Your task to perform on an android device: Do I have any events this weekend? Image 0: 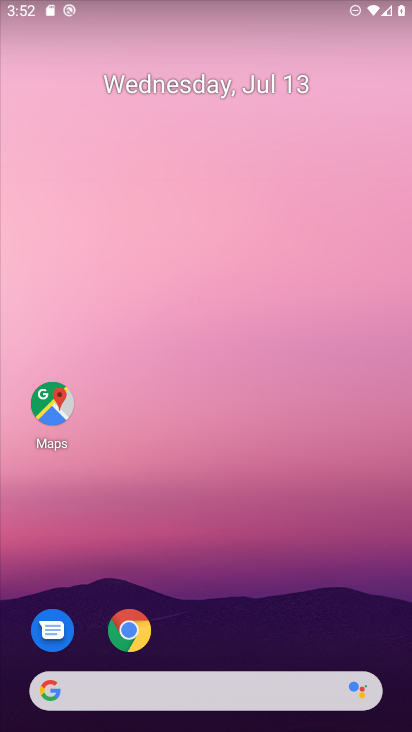
Step 0: drag from (189, 320) to (191, 213)
Your task to perform on an android device: Do I have any events this weekend? Image 1: 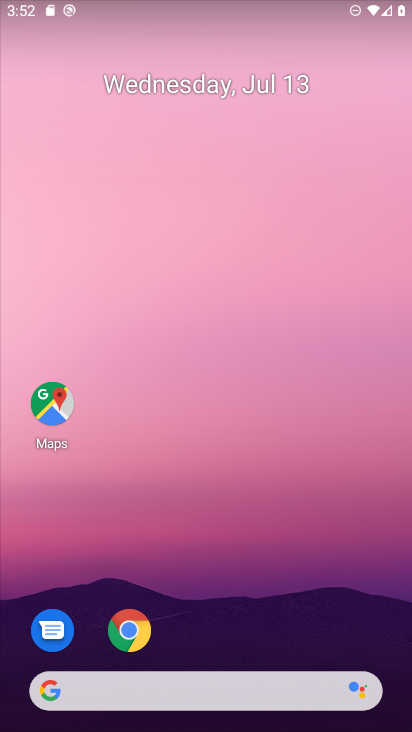
Step 1: drag from (201, 650) to (165, 121)
Your task to perform on an android device: Do I have any events this weekend? Image 2: 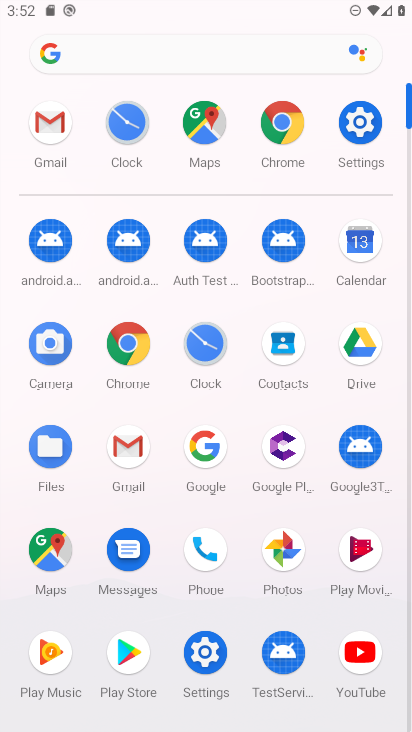
Step 2: click (357, 255)
Your task to perform on an android device: Do I have any events this weekend? Image 3: 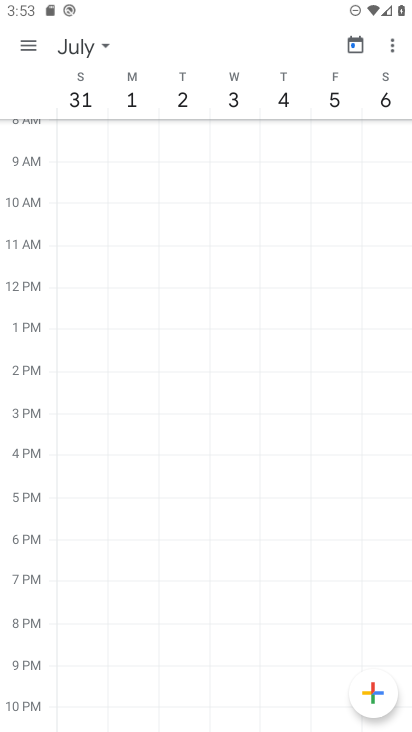
Step 3: click (87, 51)
Your task to perform on an android device: Do I have any events this weekend? Image 4: 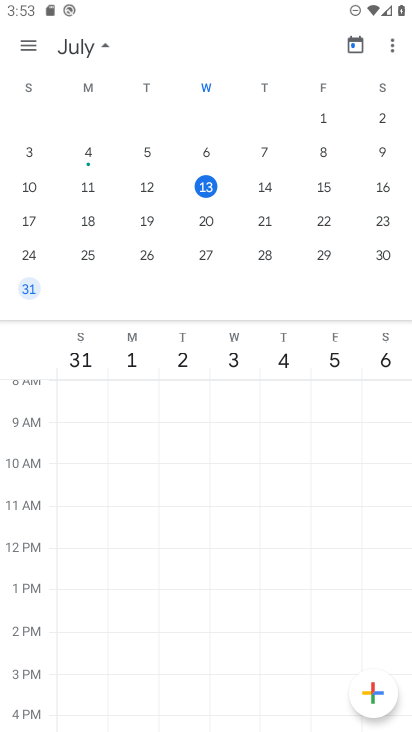
Step 4: click (30, 191)
Your task to perform on an android device: Do I have any events this weekend? Image 5: 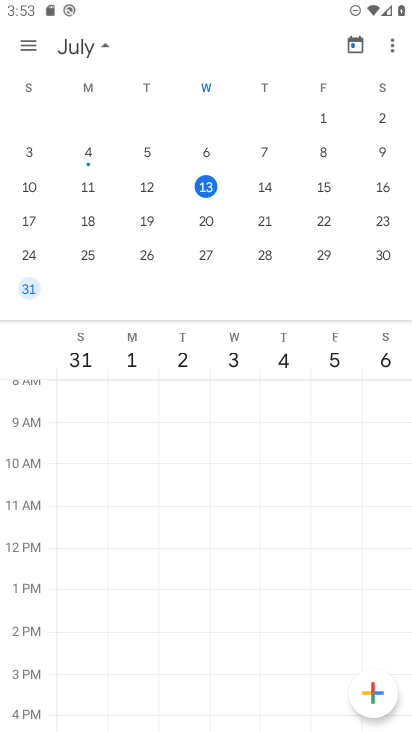
Step 5: click (30, 191)
Your task to perform on an android device: Do I have any events this weekend? Image 6: 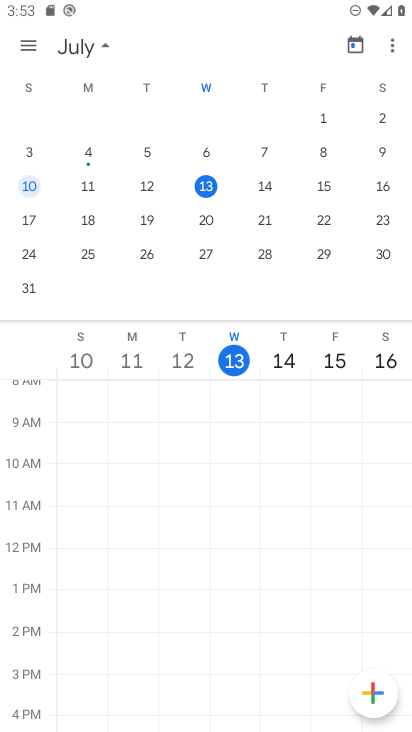
Step 6: task complete